Your task to perform on an android device: Open eBay Image 0: 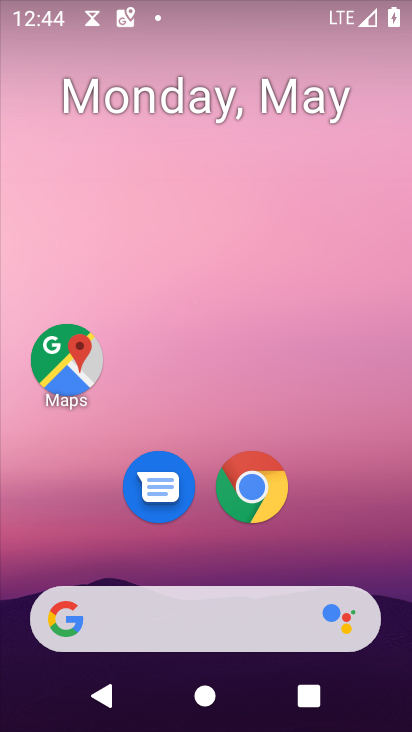
Step 0: click (251, 489)
Your task to perform on an android device: Open eBay Image 1: 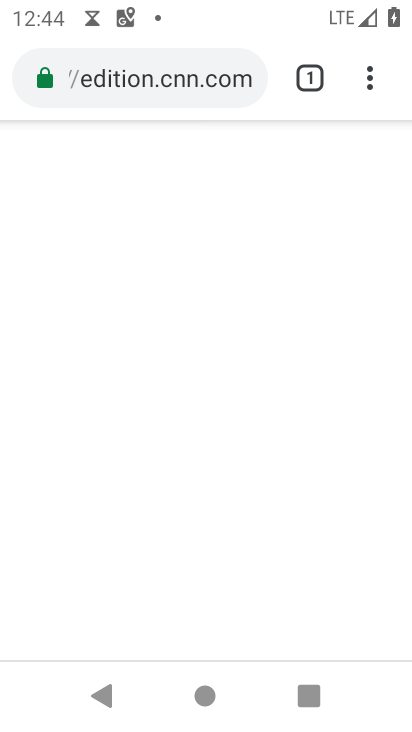
Step 1: click (184, 69)
Your task to perform on an android device: Open eBay Image 2: 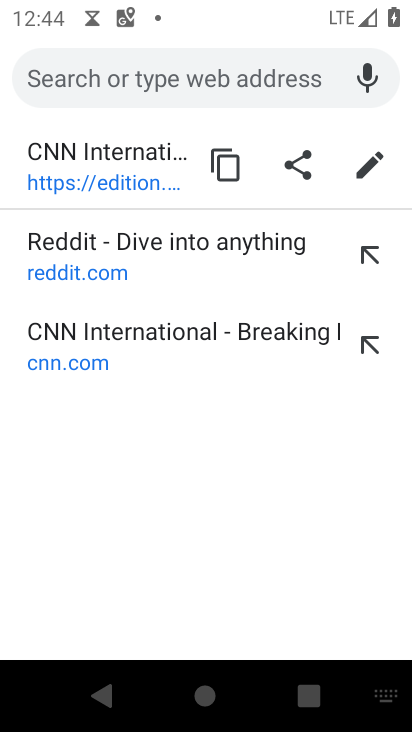
Step 2: type "ebay"
Your task to perform on an android device: Open eBay Image 3: 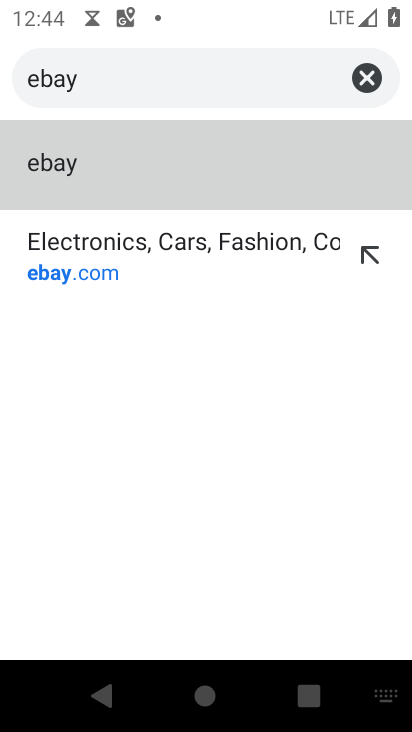
Step 3: click (40, 185)
Your task to perform on an android device: Open eBay Image 4: 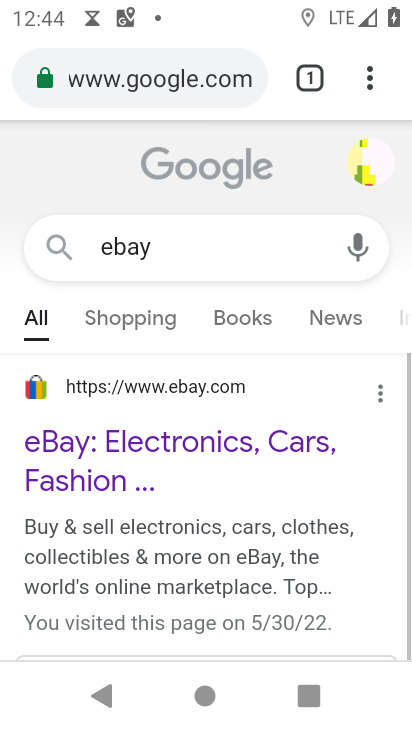
Step 4: click (149, 450)
Your task to perform on an android device: Open eBay Image 5: 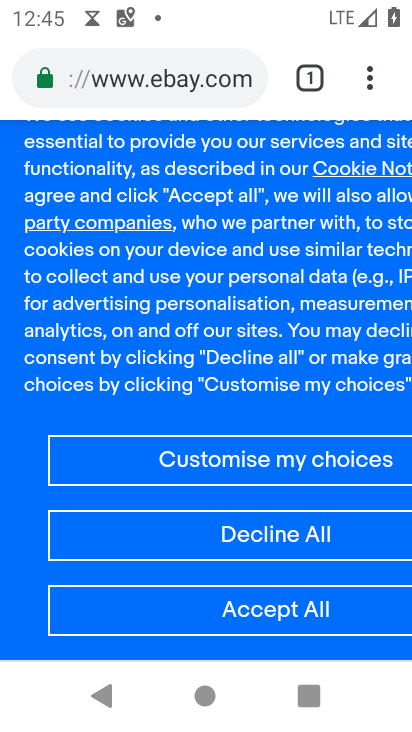
Step 5: task complete